Your task to perform on an android device: Open display settings Image 0: 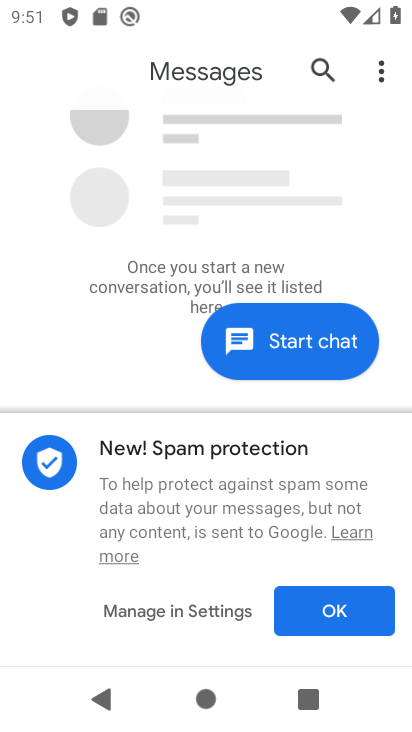
Step 0: press home button
Your task to perform on an android device: Open display settings Image 1: 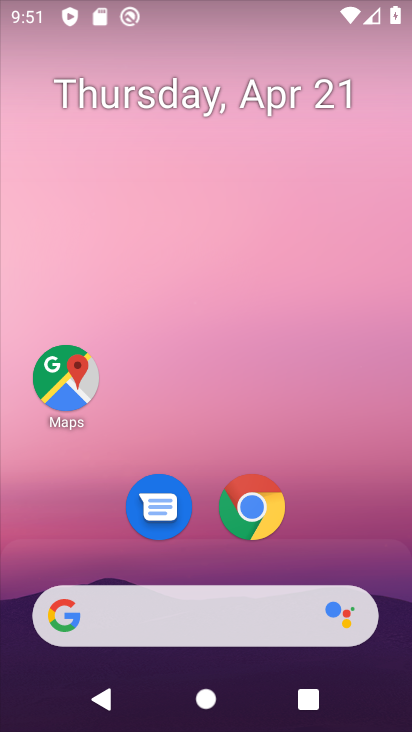
Step 1: drag from (221, 525) to (211, 125)
Your task to perform on an android device: Open display settings Image 2: 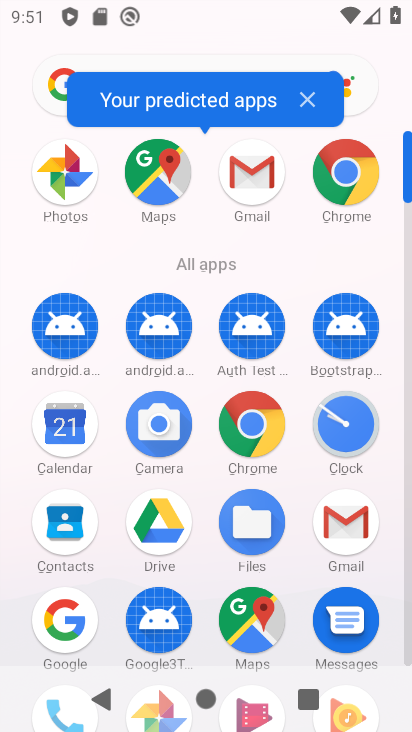
Step 2: drag from (208, 561) to (217, 195)
Your task to perform on an android device: Open display settings Image 3: 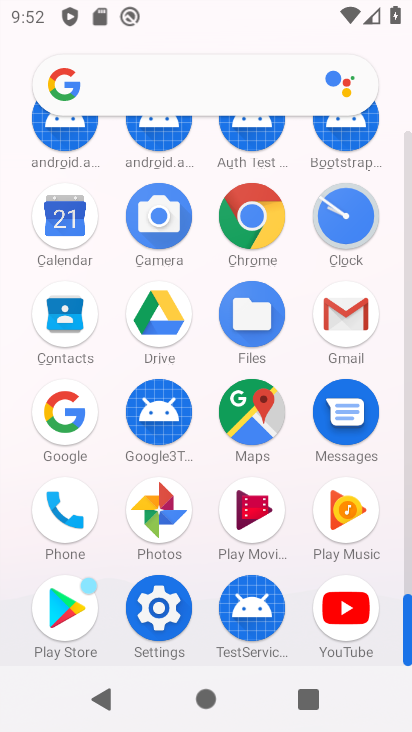
Step 3: click (167, 604)
Your task to perform on an android device: Open display settings Image 4: 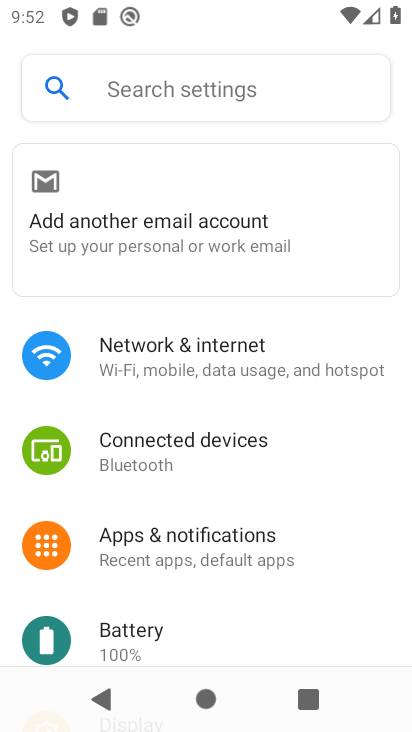
Step 4: drag from (217, 515) to (224, 168)
Your task to perform on an android device: Open display settings Image 5: 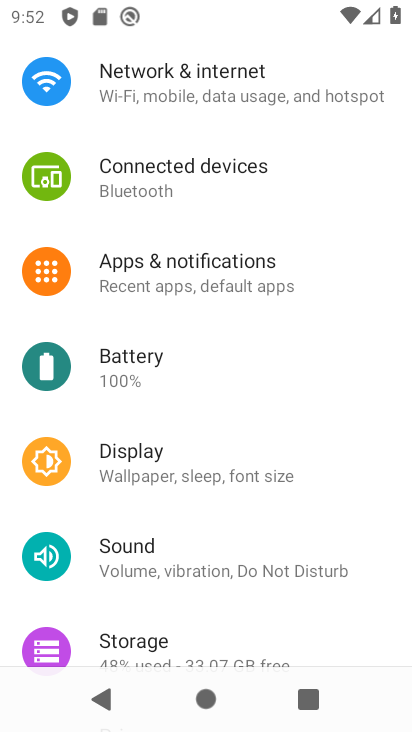
Step 5: click (167, 461)
Your task to perform on an android device: Open display settings Image 6: 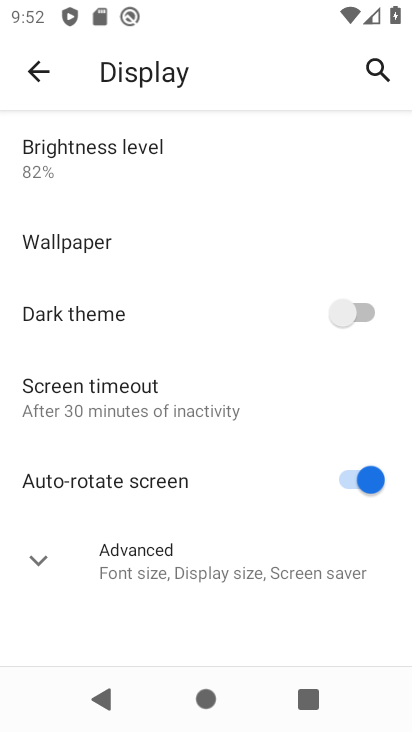
Step 6: task complete